Your task to perform on an android device: change the clock style Image 0: 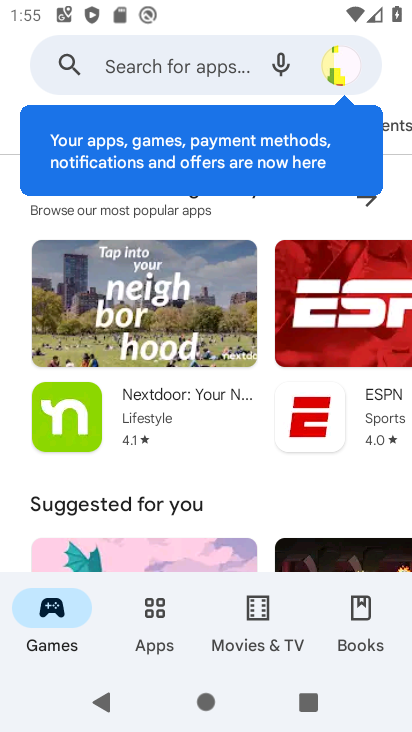
Step 0: press home button
Your task to perform on an android device: change the clock style Image 1: 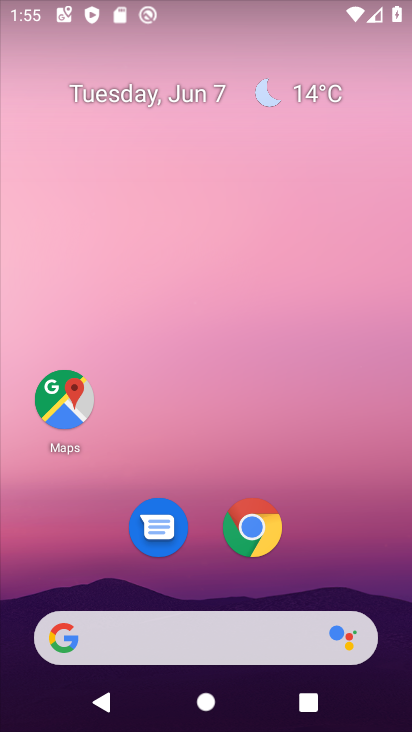
Step 1: drag from (369, 588) to (245, 102)
Your task to perform on an android device: change the clock style Image 2: 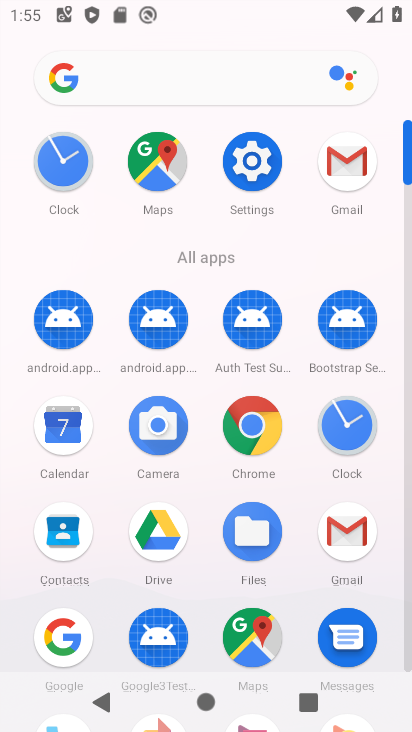
Step 2: click (69, 170)
Your task to perform on an android device: change the clock style Image 3: 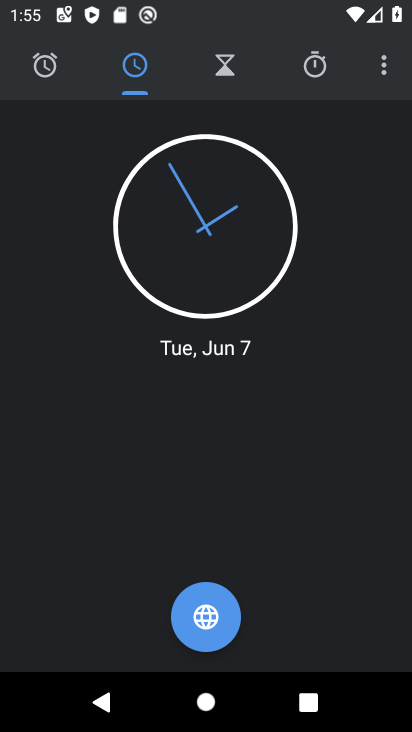
Step 3: click (379, 69)
Your task to perform on an android device: change the clock style Image 4: 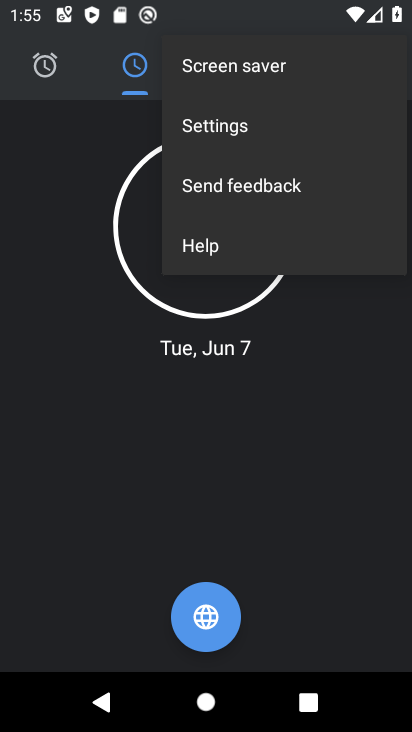
Step 4: click (314, 124)
Your task to perform on an android device: change the clock style Image 5: 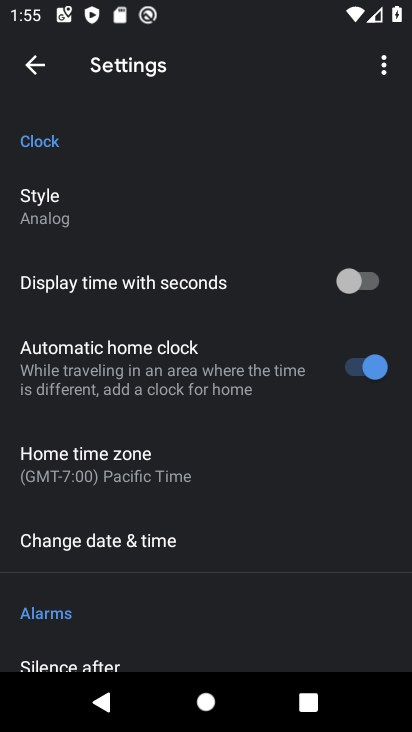
Step 5: click (115, 210)
Your task to perform on an android device: change the clock style Image 6: 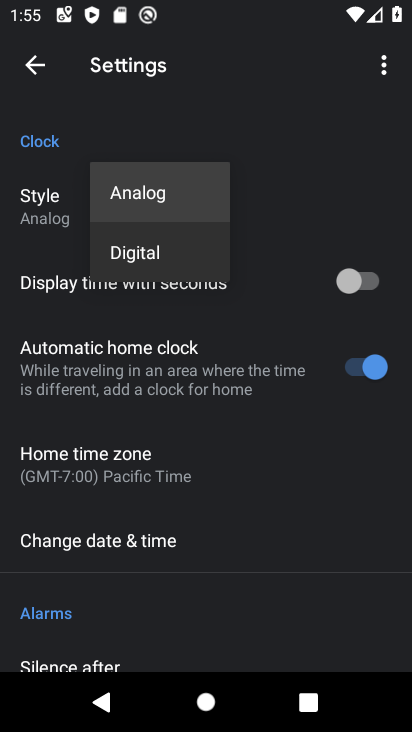
Step 6: click (136, 243)
Your task to perform on an android device: change the clock style Image 7: 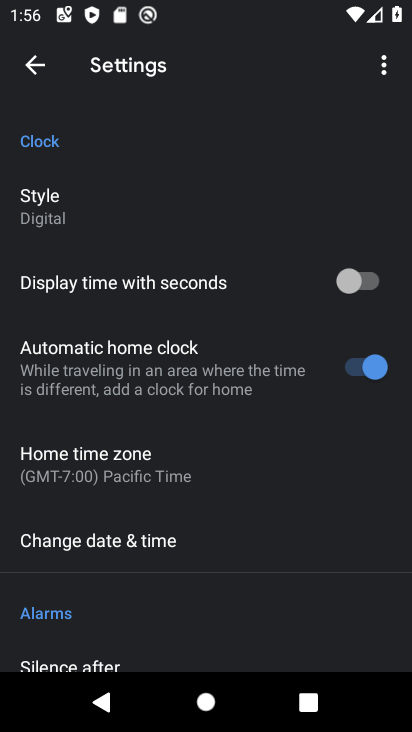
Step 7: task complete